Your task to perform on an android device: Search for pizza restaurants on Maps Image 0: 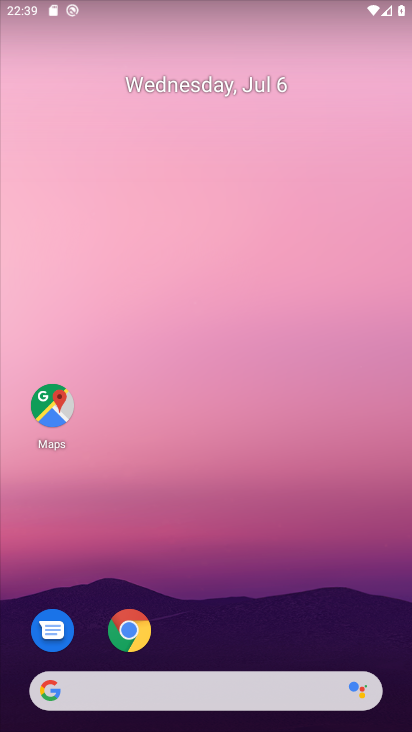
Step 0: drag from (206, 632) to (268, 173)
Your task to perform on an android device: Search for pizza restaurants on Maps Image 1: 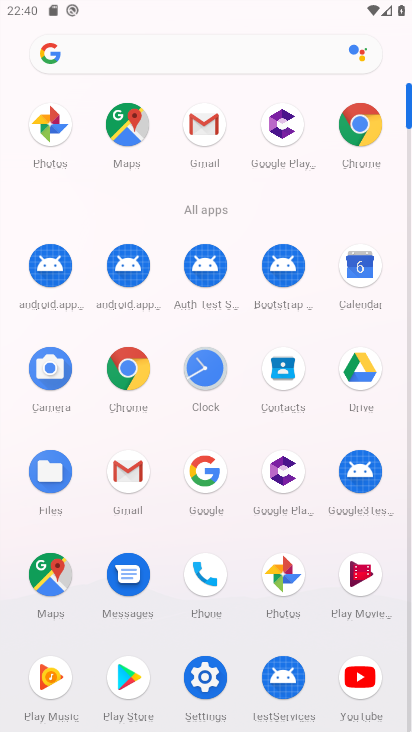
Step 1: click (32, 591)
Your task to perform on an android device: Search for pizza restaurants on Maps Image 2: 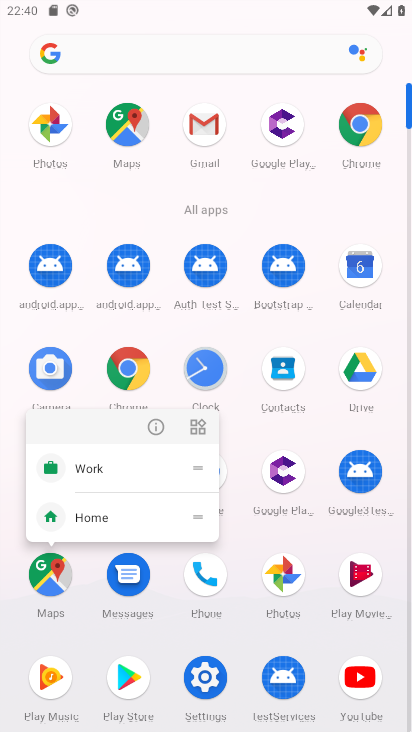
Step 2: click (154, 422)
Your task to perform on an android device: Search for pizza restaurants on Maps Image 3: 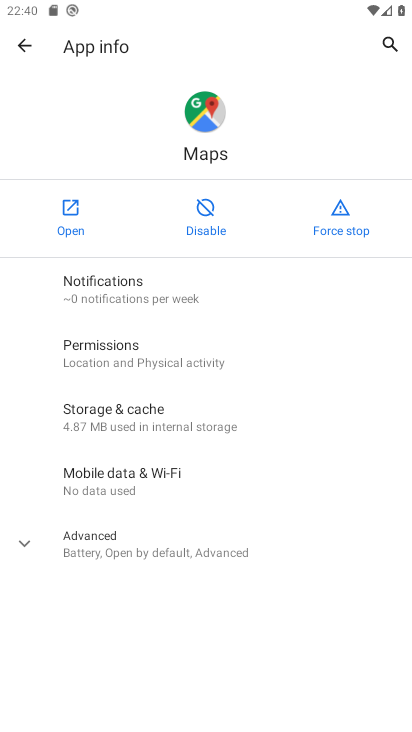
Step 3: click (66, 218)
Your task to perform on an android device: Search for pizza restaurants on Maps Image 4: 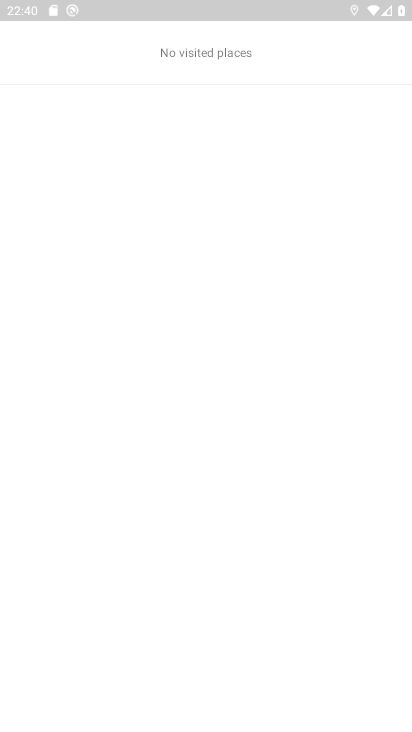
Step 4: drag from (164, 223) to (249, 548)
Your task to perform on an android device: Search for pizza restaurants on Maps Image 5: 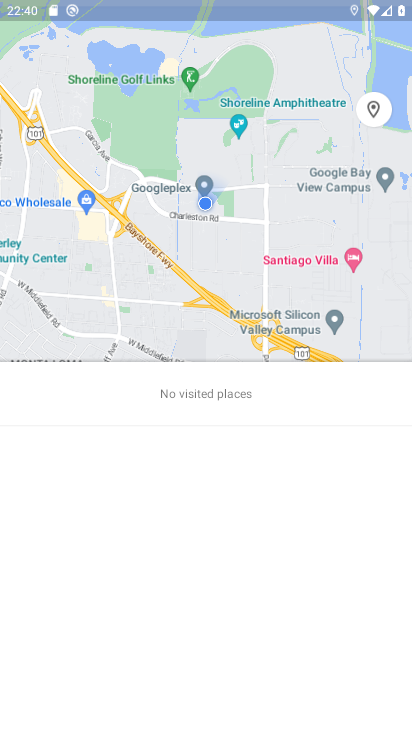
Step 5: press back button
Your task to perform on an android device: Search for pizza restaurants on Maps Image 6: 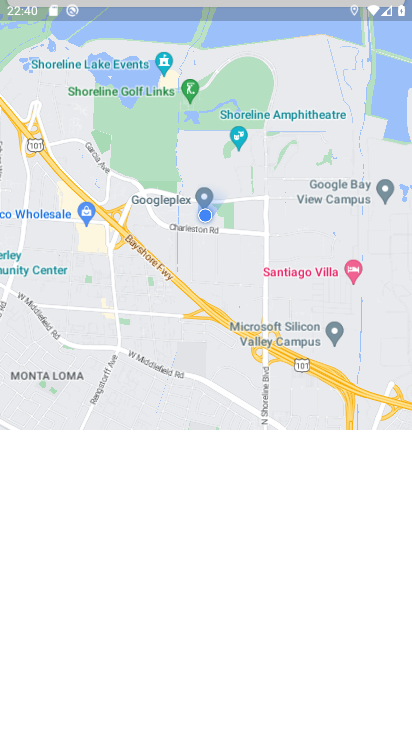
Step 6: click (24, 51)
Your task to perform on an android device: Search for pizza restaurants on Maps Image 7: 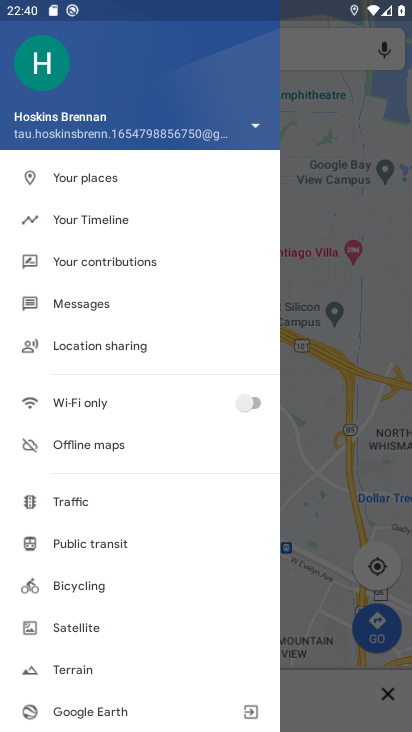
Step 7: click (294, 55)
Your task to perform on an android device: Search for pizza restaurants on Maps Image 8: 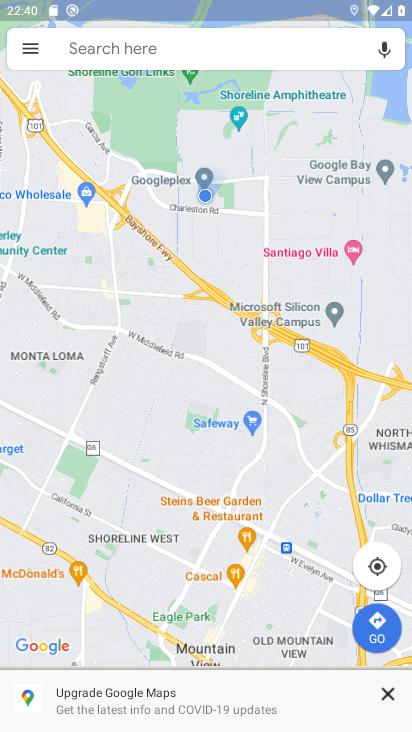
Step 8: click (98, 44)
Your task to perform on an android device: Search for pizza restaurants on Maps Image 9: 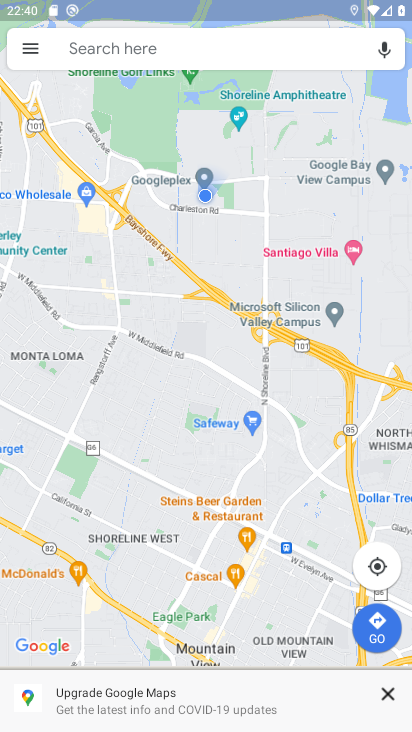
Step 9: click (96, 44)
Your task to perform on an android device: Search for pizza restaurants on Maps Image 10: 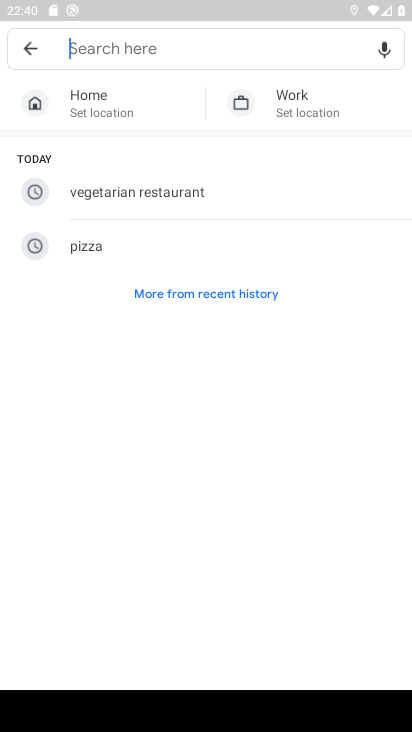
Step 10: type "pizza restaurants "
Your task to perform on an android device: Search for pizza restaurants on Maps Image 11: 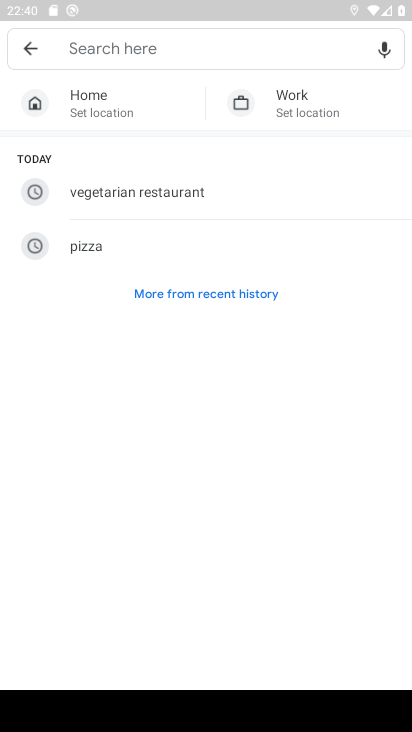
Step 11: click (77, 234)
Your task to perform on an android device: Search for pizza restaurants on Maps Image 12: 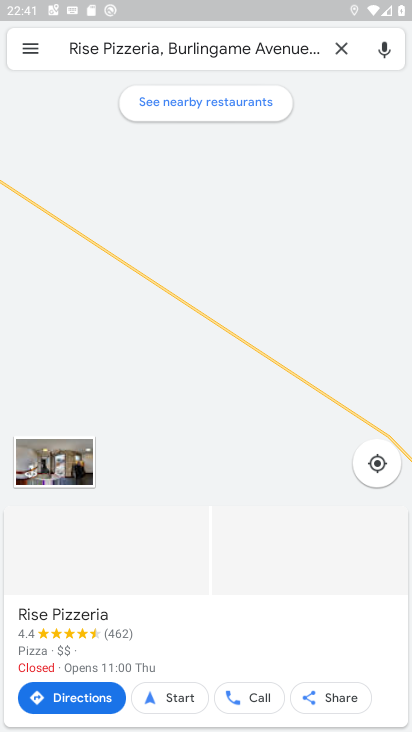
Step 12: drag from (278, 632) to (324, 268)
Your task to perform on an android device: Search for pizza restaurants on Maps Image 13: 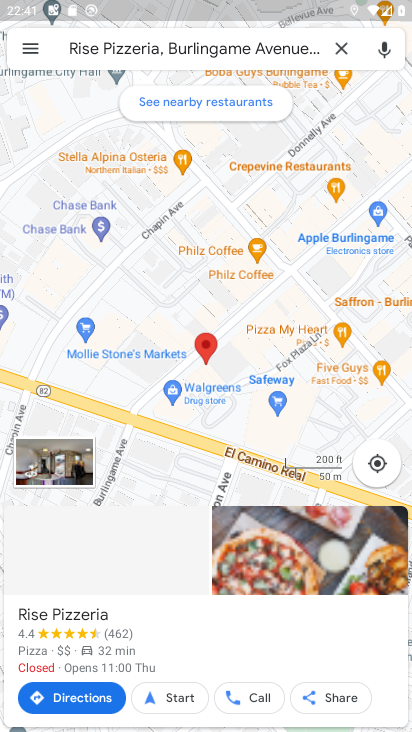
Step 13: click (333, 48)
Your task to perform on an android device: Search for pizza restaurants on Maps Image 14: 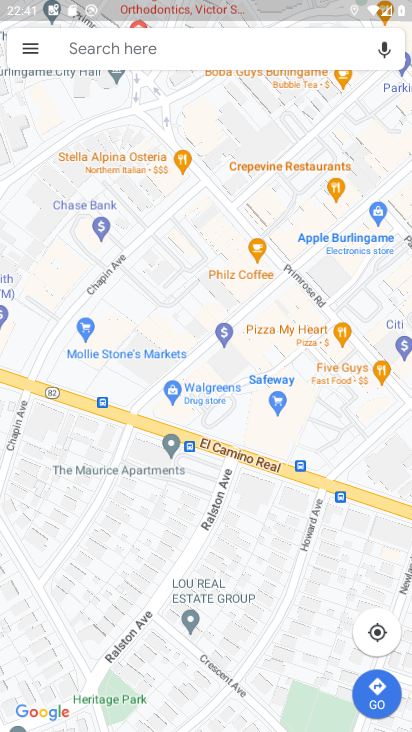
Step 14: click (100, 39)
Your task to perform on an android device: Search for pizza restaurants on Maps Image 15: 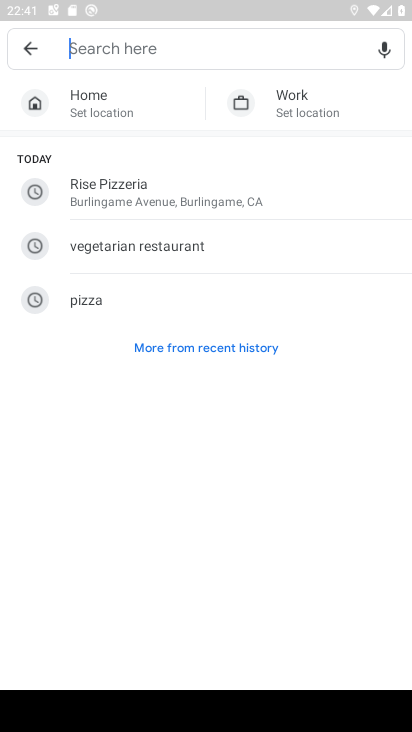
Step 15: type "pizza restaurants"
Your task to perform on an android device: Search for pizza restaurants on Maps Image 16: 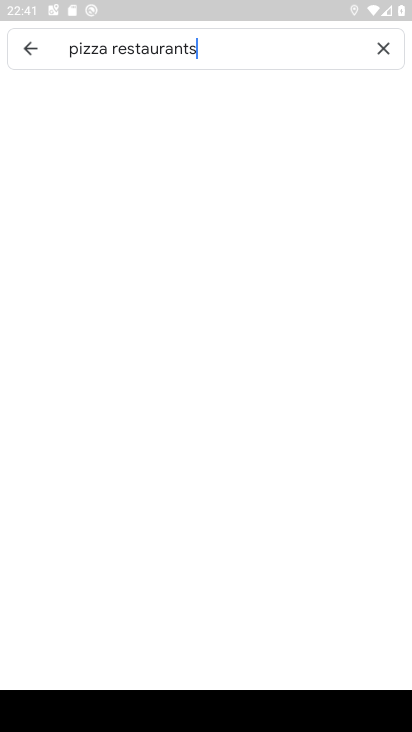
Step 16: type ""
Your task to perform on an android device: Search for pizza restaurants on Maps Image 17: 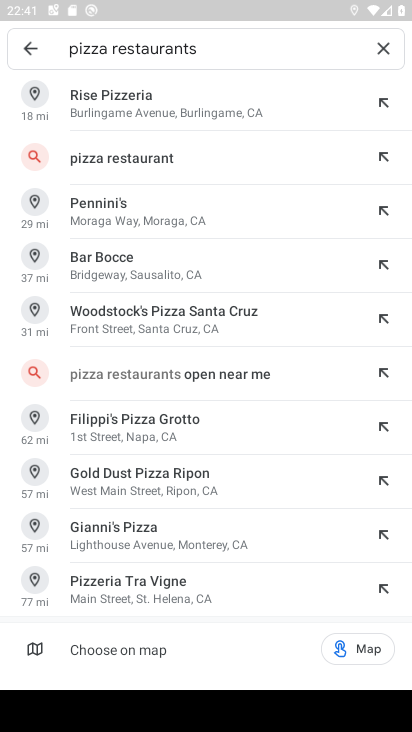
Step 17: click (132, 148)
Your task to perform on an android device: Search for pizza restaurants on Maps Image 18: 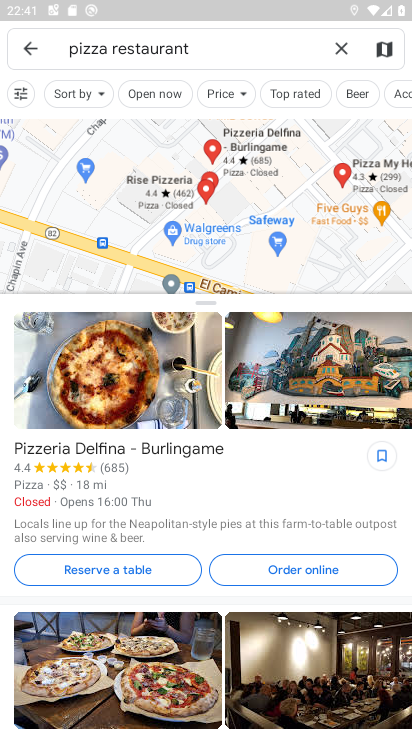
Step 18: task complete